Your task to perform on an android device: Open the calendar and show me this week's events? Image 0: 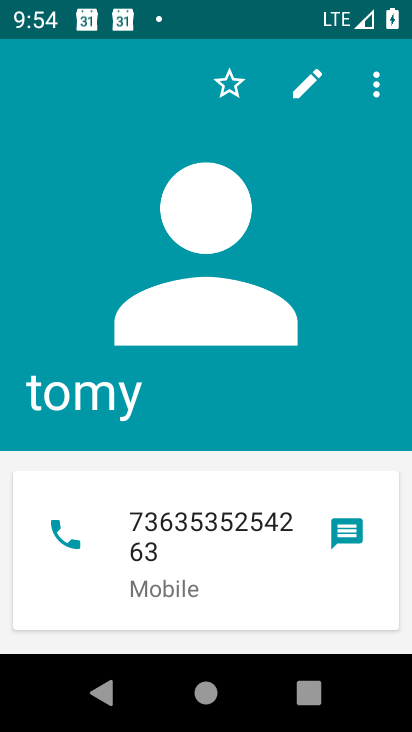
Step 0: press home button
Your task to perform on an android device: Open the calendar and show me this week's events? Image 1: 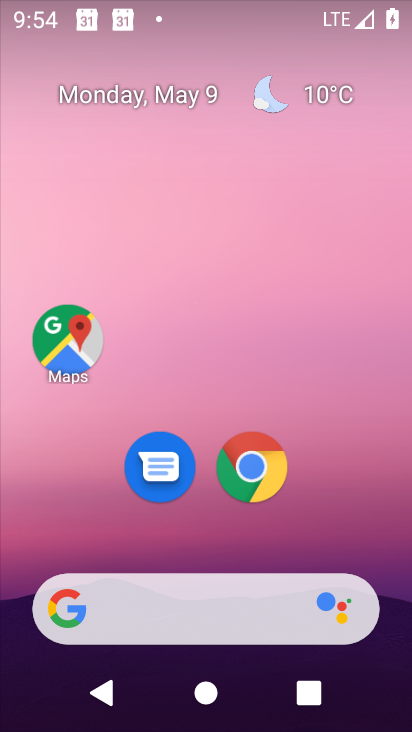
Step 1: drag from (340, 480) to (366, 6)
Your task to perform on an android device: Open the calendar and show me this week's events? Image 2: 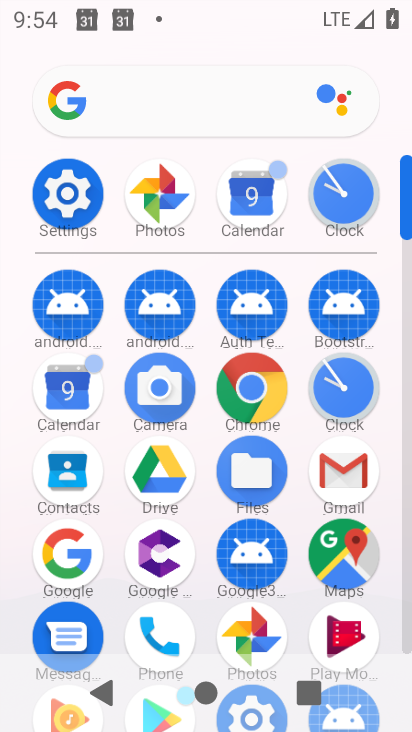
Step 2: click (255, 200)
Your task to perform on an android device: Open the calendar and show me this week's events? Image 3: 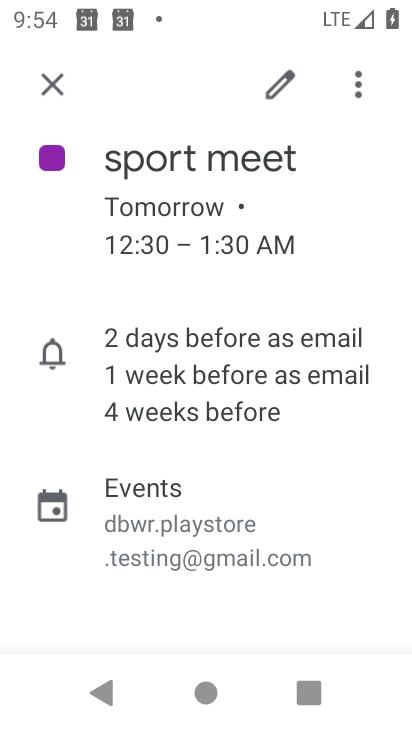
Step 3: click (42, 90)
Your task to perform on an android device: Open the calendar and show me this week's events? Image 4: 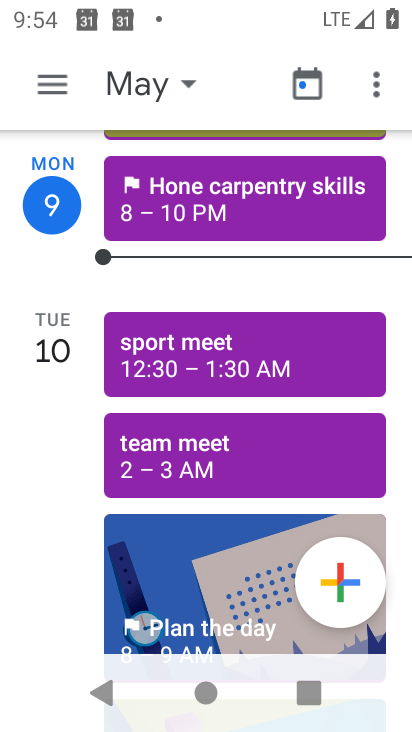
Step 4: click (42, 83)
Your task to perform on an android device: Open the calendar and show me this week's events? Image 5: 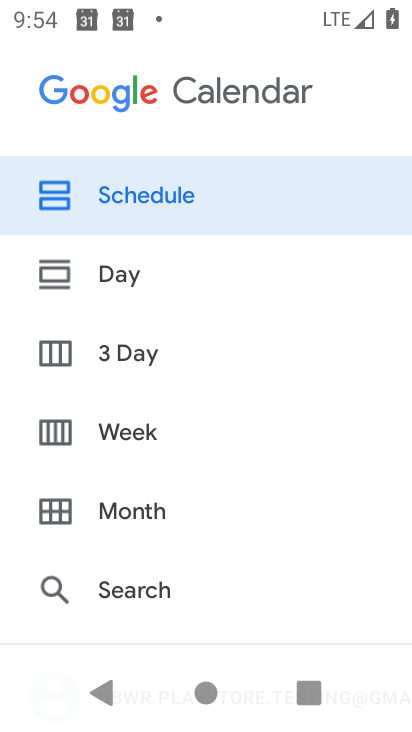
Step 5: click (113, 448)
Your task to perform on an android device: Open the calendar and show me this week's events? Image 6: 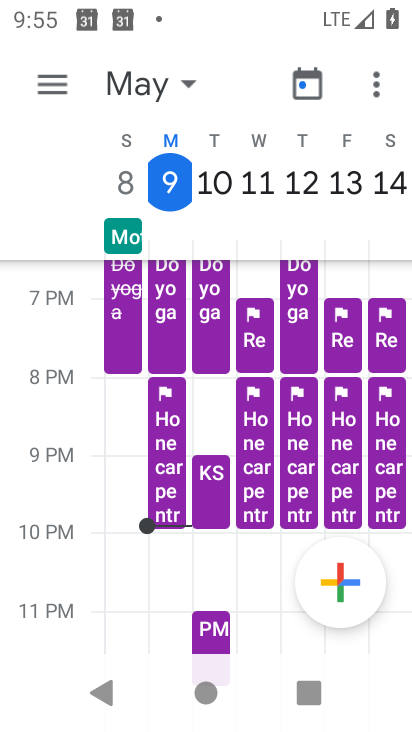
Step 6: task complete